Your task to perform on an android device: Open display settings Image 0: 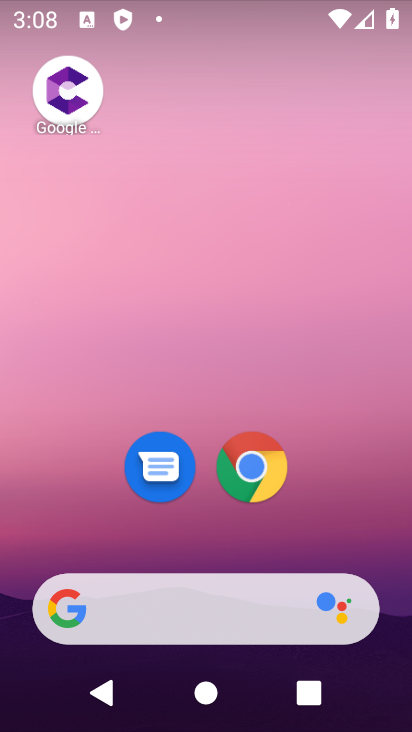
Step 0: task complete